Your task to perform on an android device: Is it going to rain this weekend? Image 0: 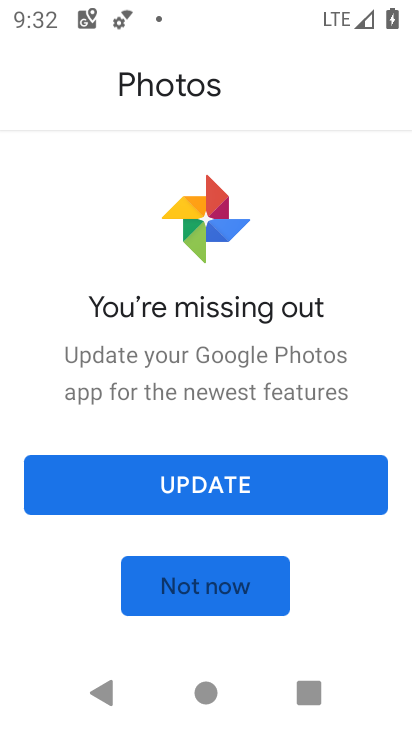
Step 0: press home button
Your task to perform on an android device: Is it going to rain this weekend? Image 1: 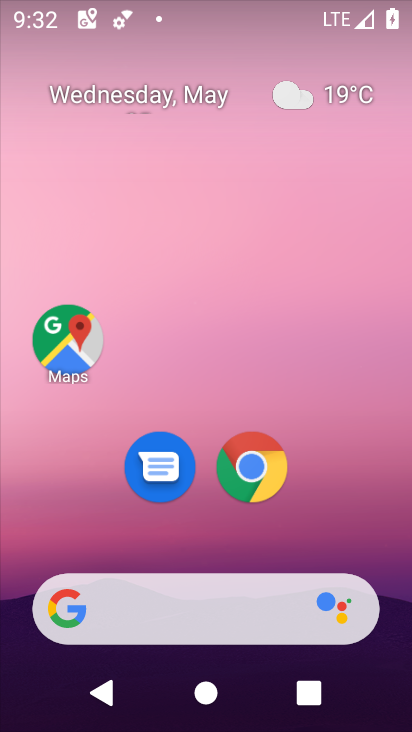
Step 1: click (354, 89)
Your task to perform on an android device: Is it going to rain this weekend? Image 2: 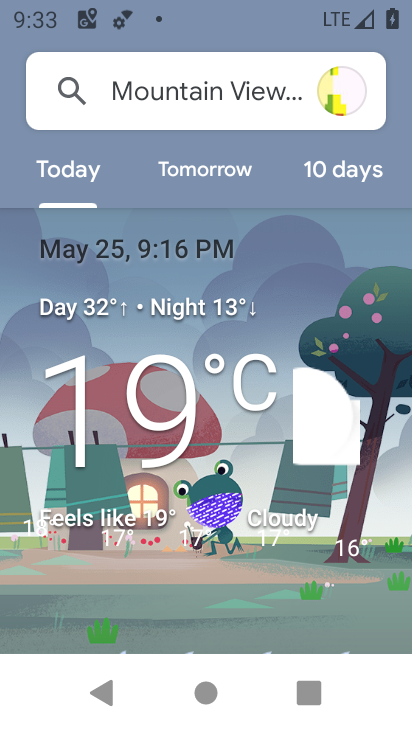
Step 2: click (350, 171)
Your task to perform on an android device: Is it going to rain this weekend? Image 3: 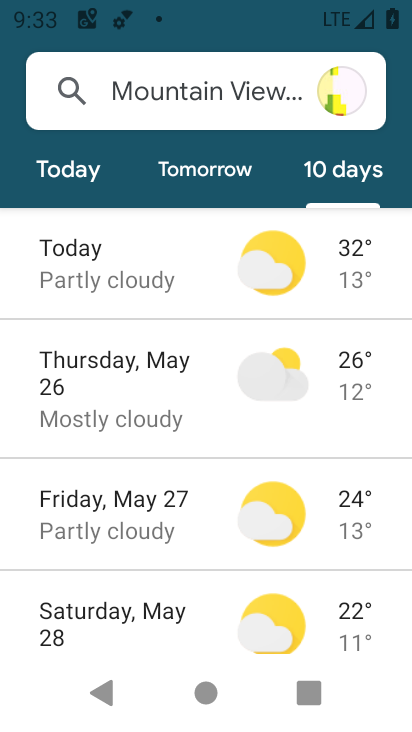
Step 3: task complete